Your task to perform on an android device: Go to accessibility settings Image 0: 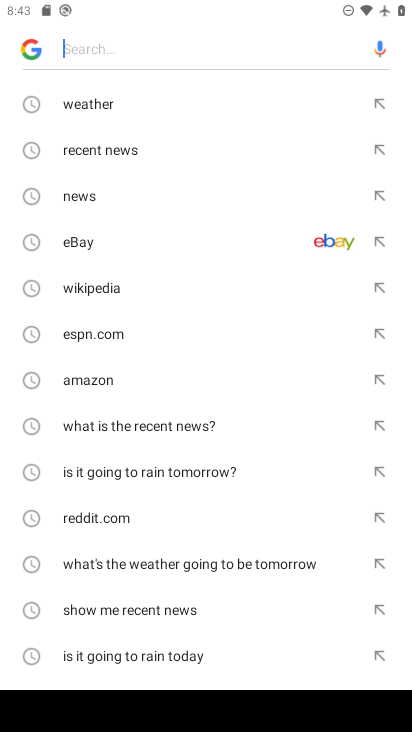
Step 0: press home button
Your task to perform on an android device: Go to accessibility settings Image 1: 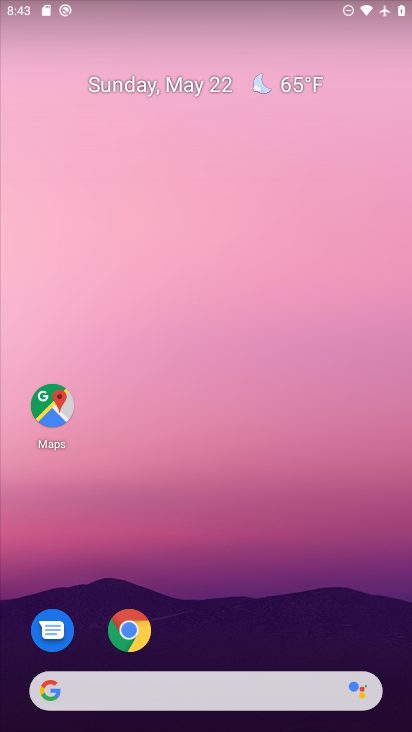
Step 1: drag from (160, 694) to (245, 356)
Your task to perform on an android device: Go to accessibility settings Image 2: 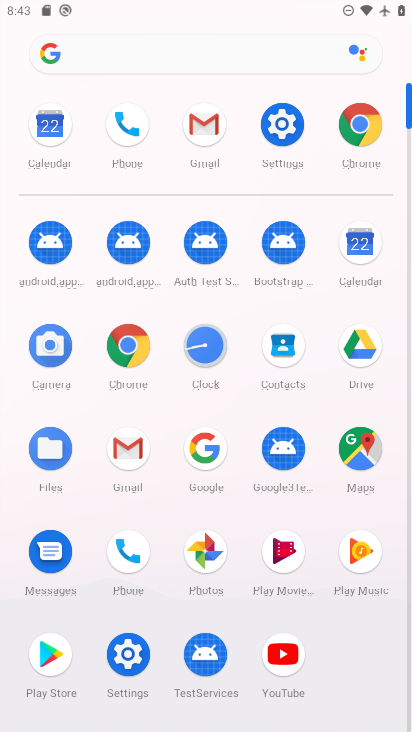
Step 2: click (282, 128)
Your task to perform on an android device: Go to accessibility settings Image 3: 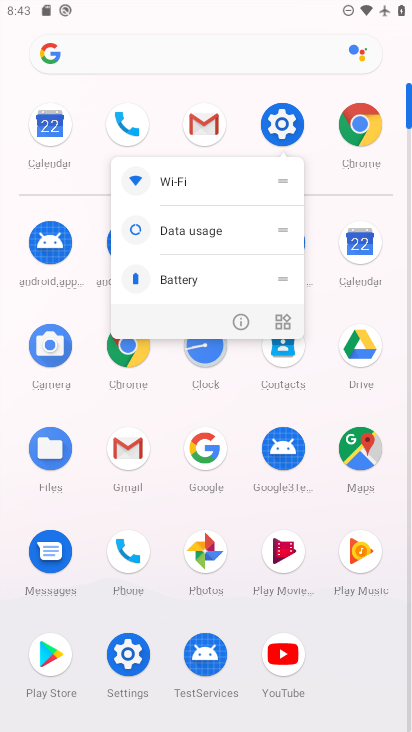
Step 3: click (282, 127)
Your task to perform on an android device: Go to accessibility settings Image 4: 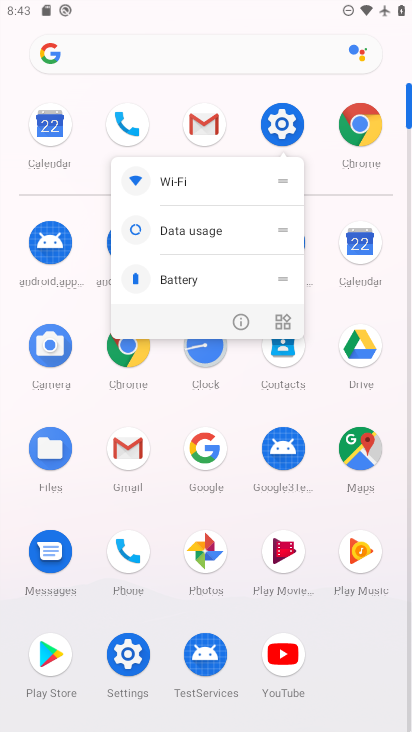
Step 4: click (287, 127)
Your task to perform on an android device: Go to accessibility settings Image 5: 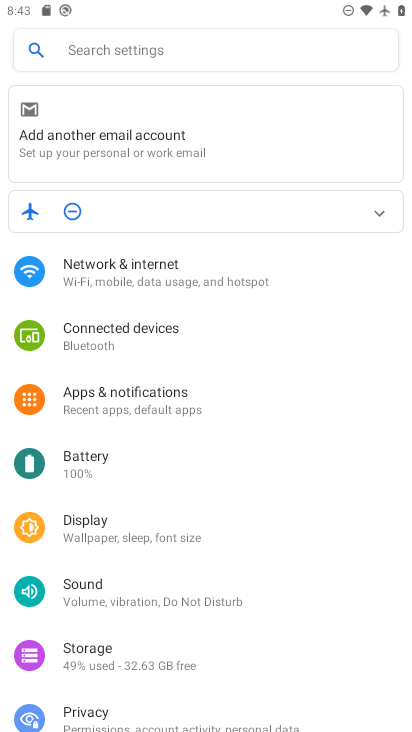
Step 5: drag from (288, 665) to (317, 240)
Your task to perform on an android device: Go to accessibility settings Image 6: 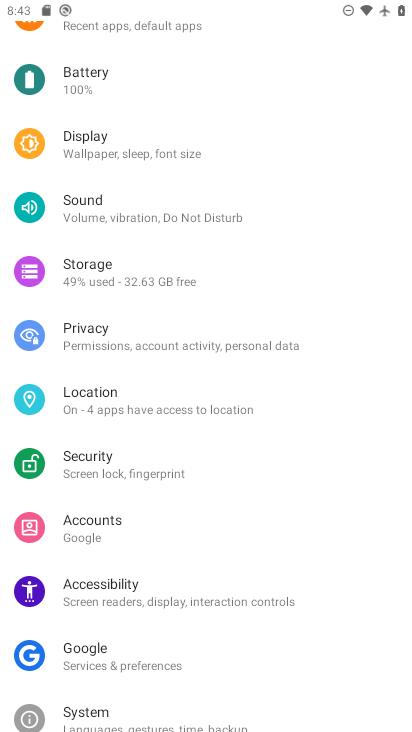
Step 6: click (121, 594)
Your task to perform on an android device: Go to accessibility settings Image 7: 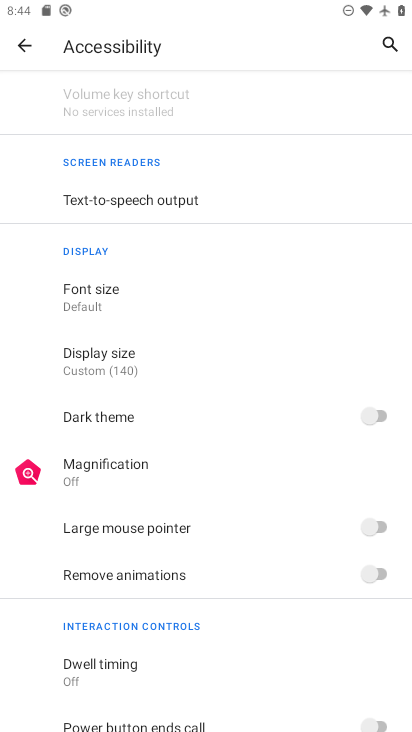
Step 7: task complete